Your task to perform on an android device: set the timer Image 0: 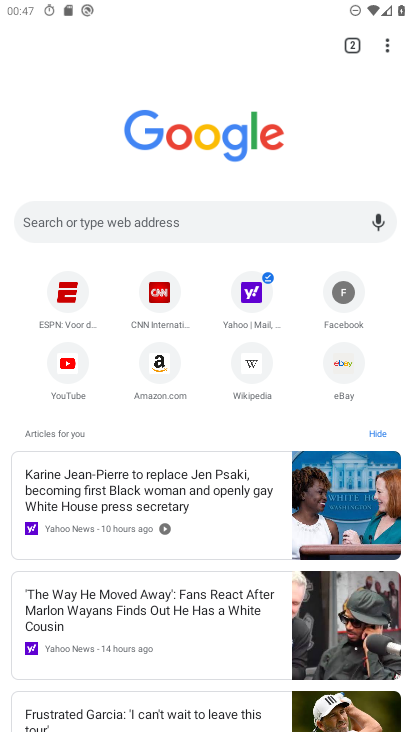
Step 0: press home button
Your task to perform on an android device: set the timer Image 1: 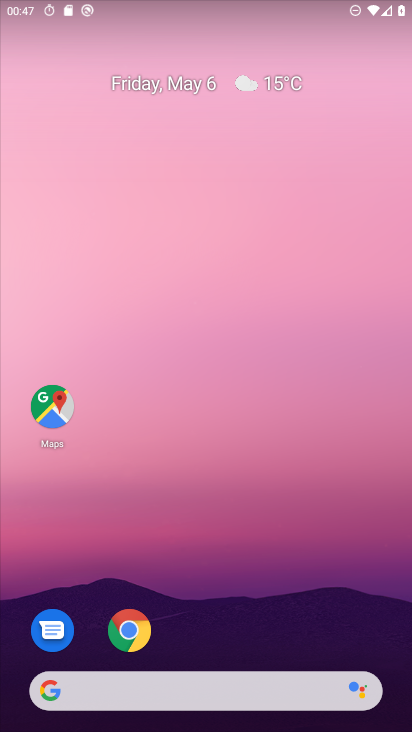
Step 1: drag from (315, 582) to (273, 112)
Your task to perform on an android device: set the timer Image 2: 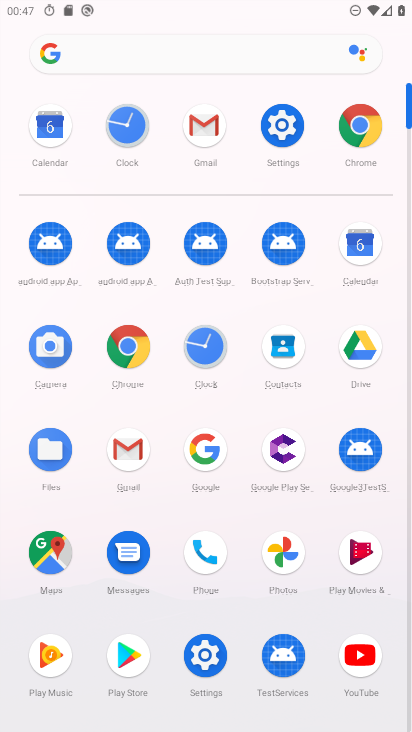
Step 2: click (138, 121)
Your task to perform on an android device: set the timer Image 3: 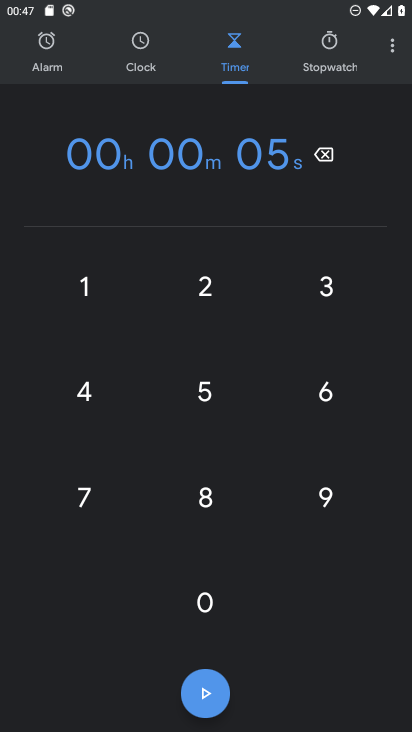
Step 3: task complete